Your task to perform on an android device: toggle airplane mode Image 0: 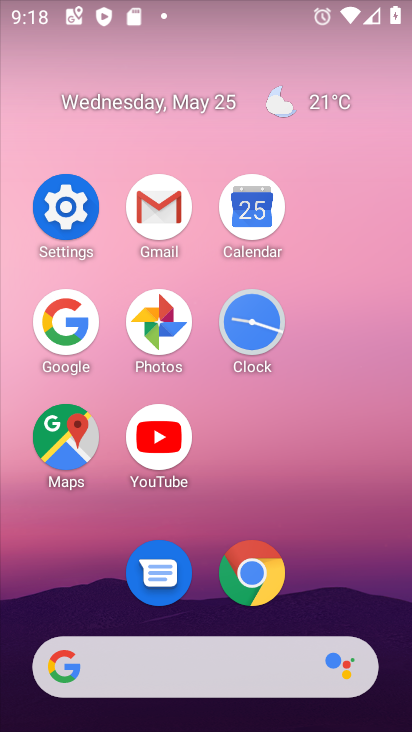
Step 0: click (72, 223)
Your task to perform on an android device: toggle airplane mode Image 1: 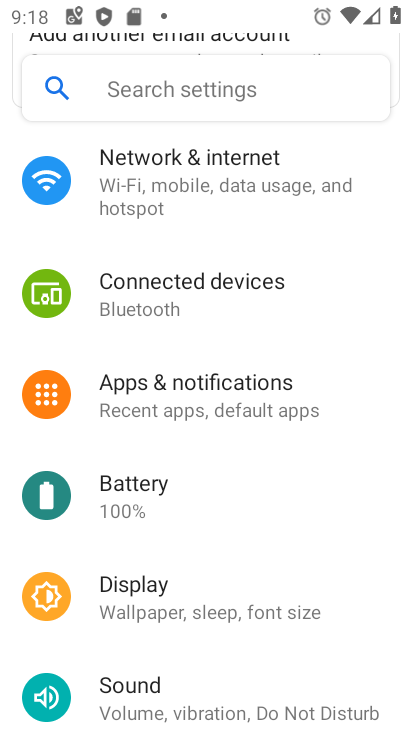
Step 1: click (186, 204)
Your task to perform on an android device: toggle airplane mode Image 2: 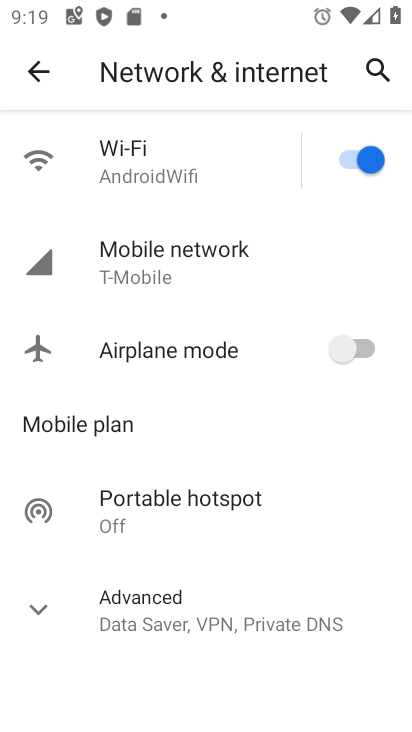
Step 2: click (343, 370)
Your task to perform on an android device: toggle airplane mode Image 3: 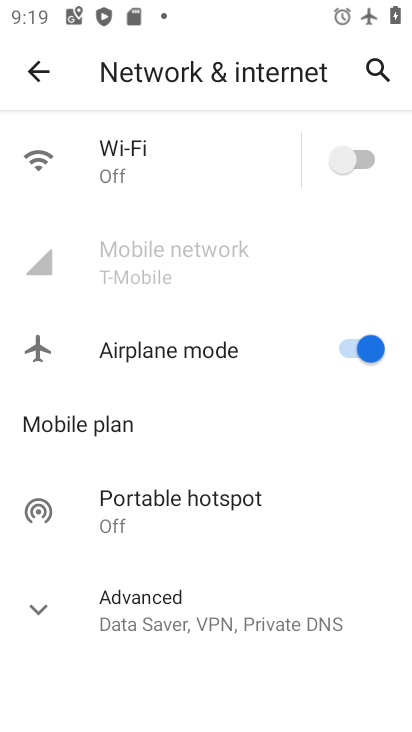
Step 3: task complete